Your task to perform on an android device: Open Yahoo.com Image 0: 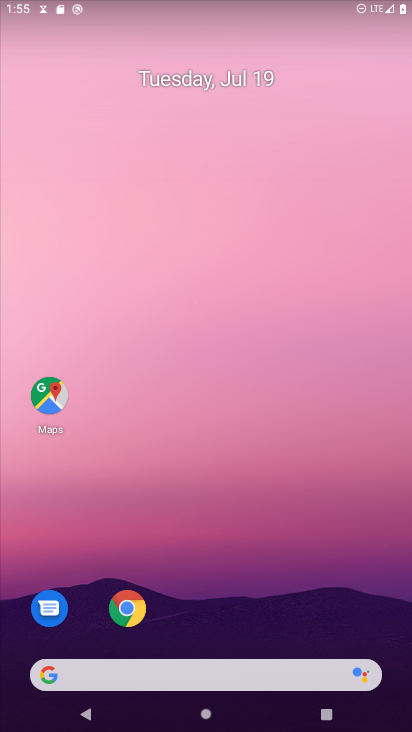
Step 0: drag from (247, 662) to (320, 7)
Your task to perform on an android device: Open Yahoo.com Image 1: 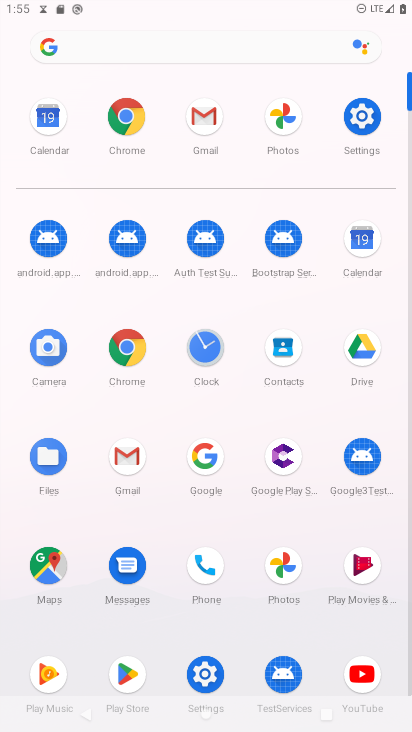
Step 1: click (141, 343)
Your task to perform on an android device: Open Yahoo.com Image 2: 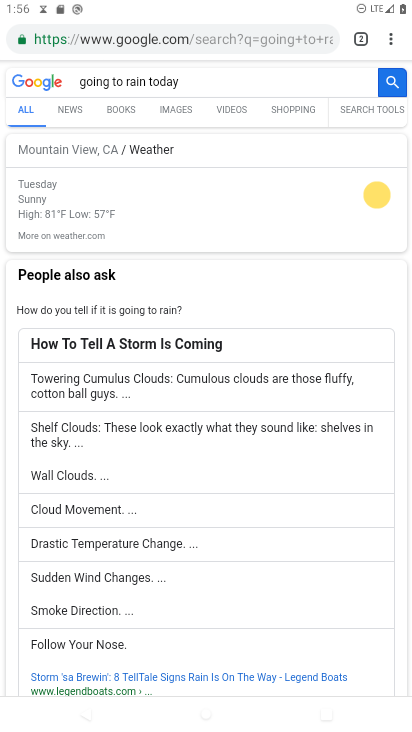
Step 2: click (234, 37)
Your task to perform on an android device: Open Yahoo.com Image 3: 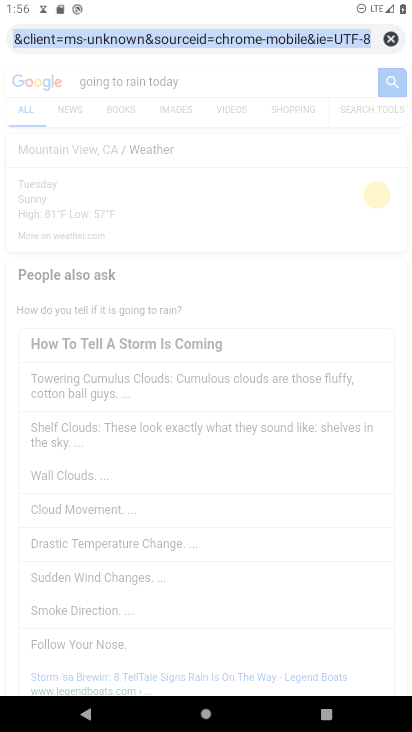
Step 3: type "yahoo.com"
Your task to perform on an android device: Open Yahoo.com Image 4: 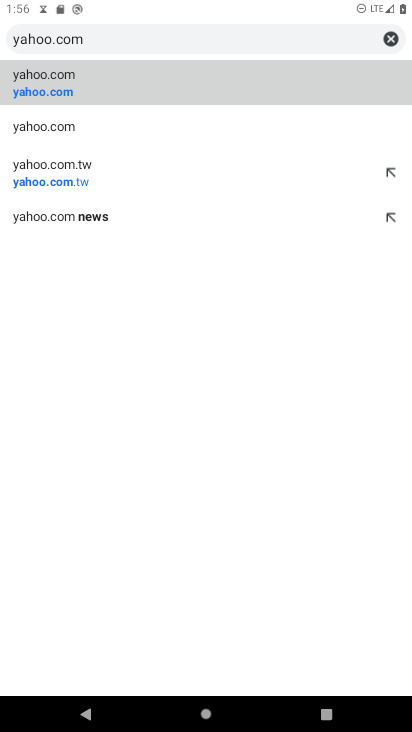
Step 4: click (42, 88)
Your task to perform on an android device: Open Yahoo.com Image 5: 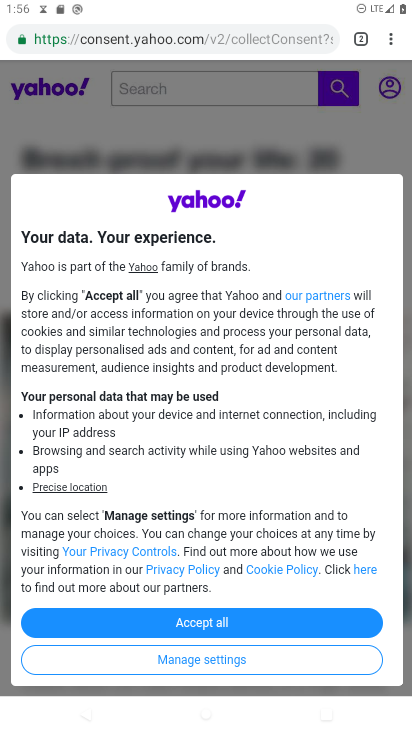
Step 5: task complete